Your task to perform on an android device: Open Reddit.com Image 0: 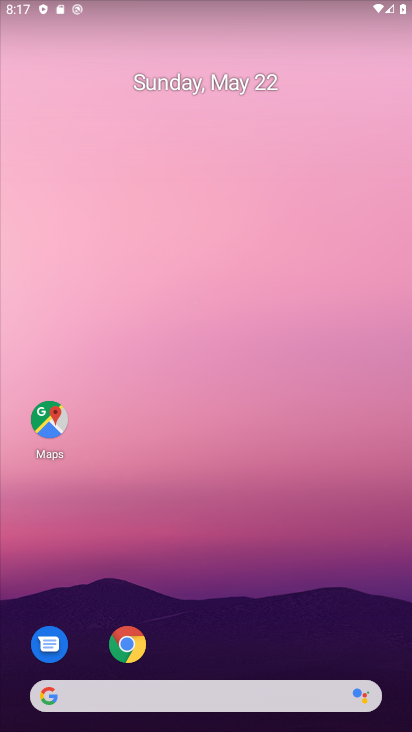
Step 0: click (144, 648)
Your task to perform on an android device: Open Reddit.com Image 1: 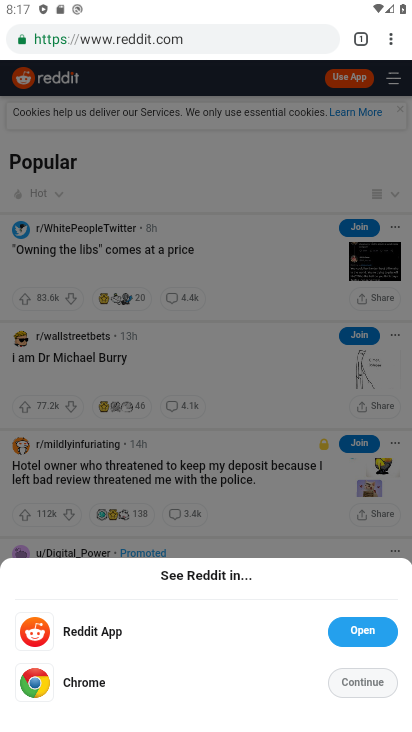
Step 1: click (366, 687)
Your task to perform on an android device: Open Reddit.com Image 2: 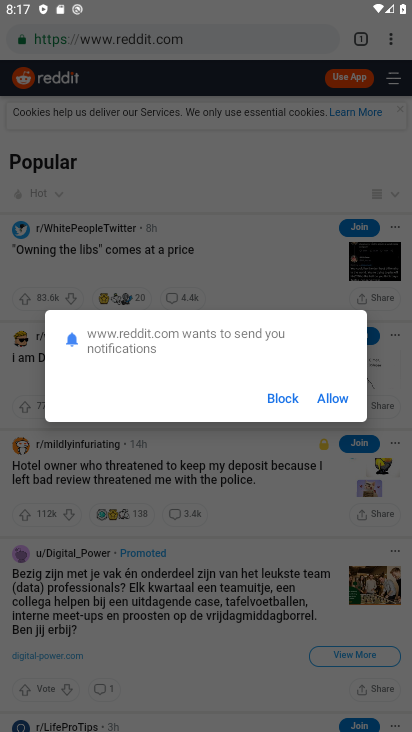
Step 2: task complete